Your task to perform on an android device: set an alarm Image 0: 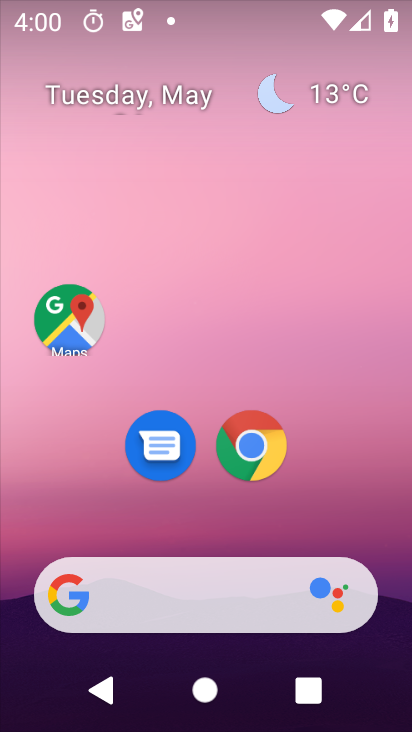
Step 0: drag from (204, 527) to (210, 161)
Your task to perform on an android device: set an alarm Image 1: 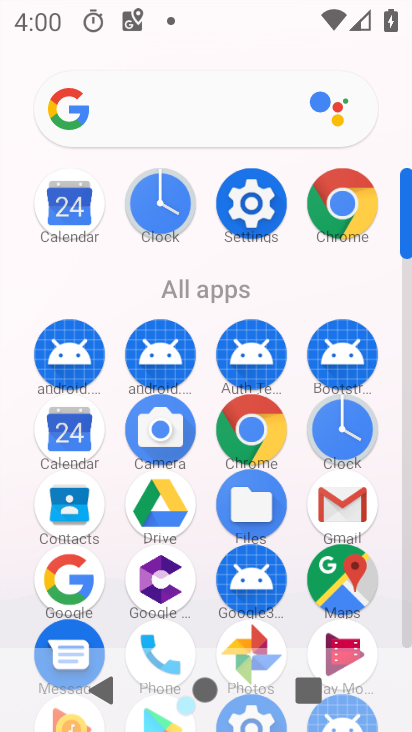
Step 1: click (155, 190)
Your task to perform on an android device: set an alarm Image 2: 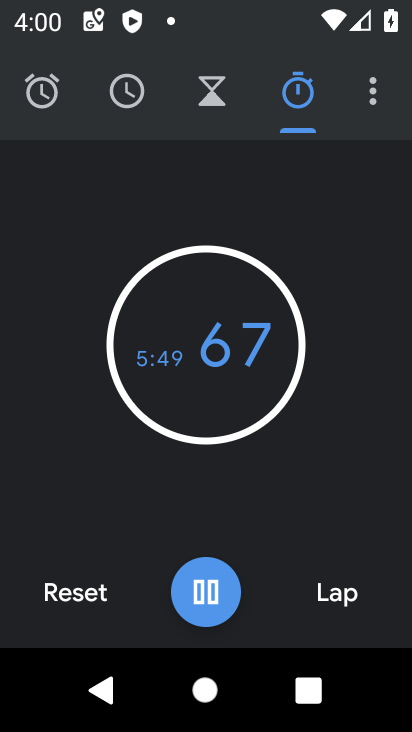
Step 2: click (44, 127)
Your task to perform on an android device: set an alarm Image 3: 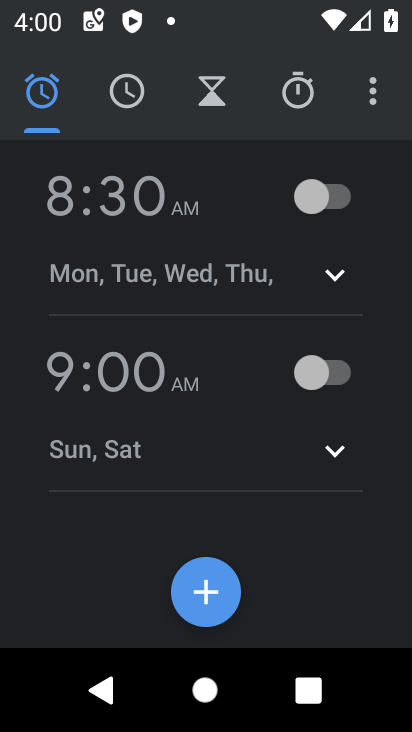
Step 3: task complete